Your task to perform on an android device: toggle airplane mode Image 0: 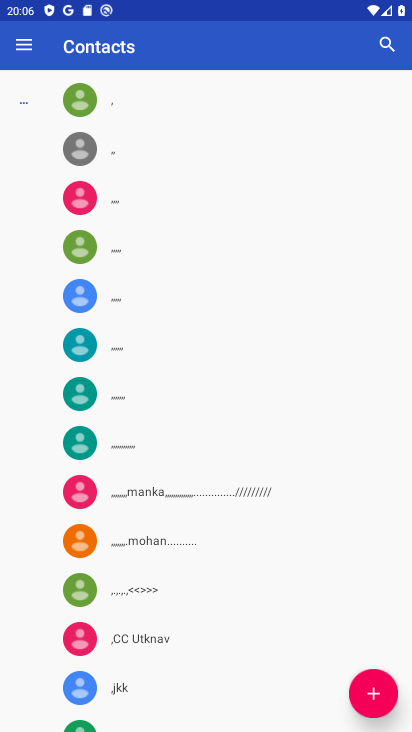
Step 0: press home button
Your task to perform on an android device: toggle airplane mode Image 1: 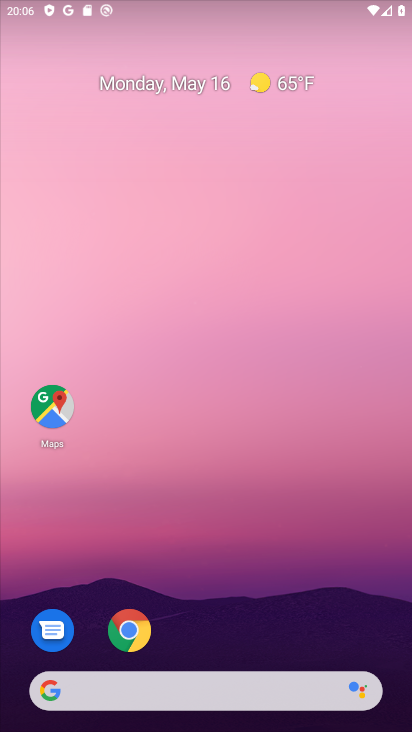
Step 1: drag from (223, 601) to (246, 233)
Your task to perform on an android device: toggle airplane mode Image 2: 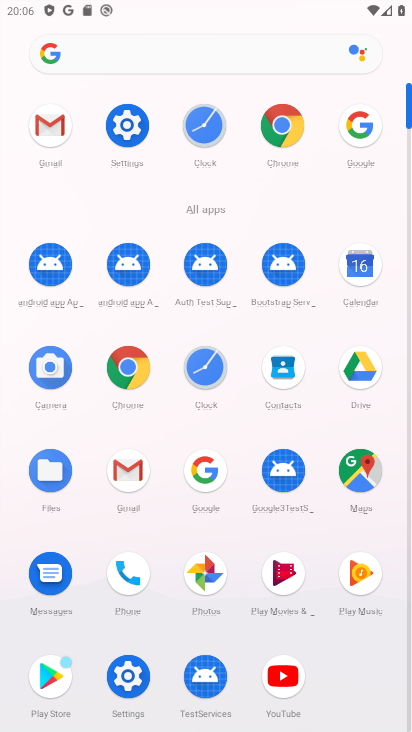
Step 2: click (145, 117)
Your task to perform on an android device: toggle airplane mode Image 3: 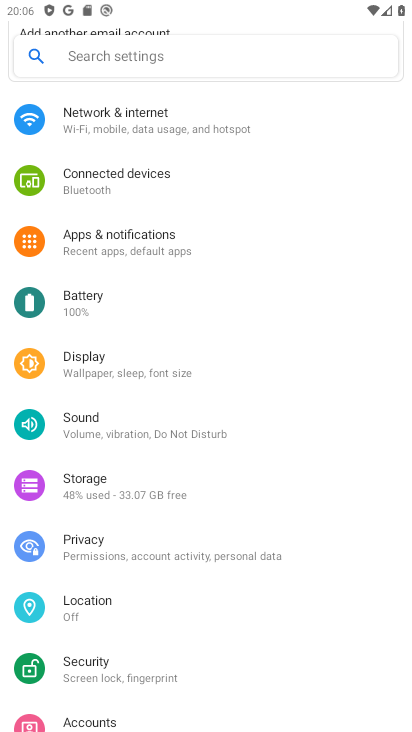
Step 3: click (186, 133)
Your task to perform on an android device: toggle airplane mode Image 4: 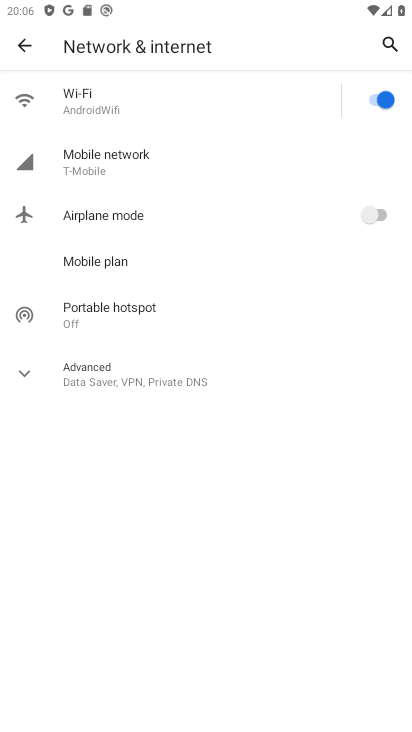
Step 4: click (385, 225)
Your task to perform on an android device: toggle airplane mode Image 5: 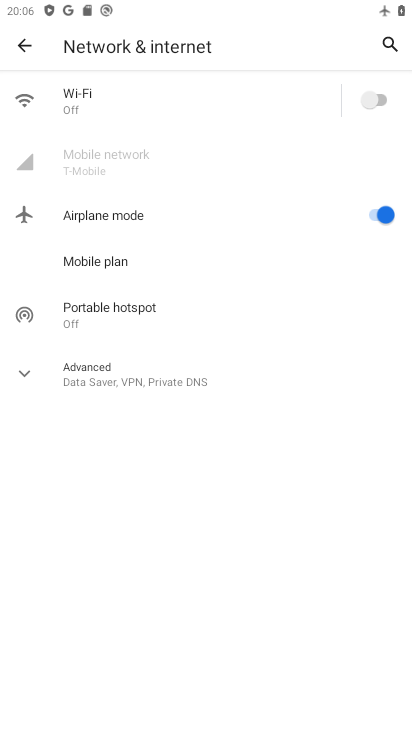
Step 5: task complete